Your task to perform on an android device: Search for a nightstand on IKEA. Image 0: 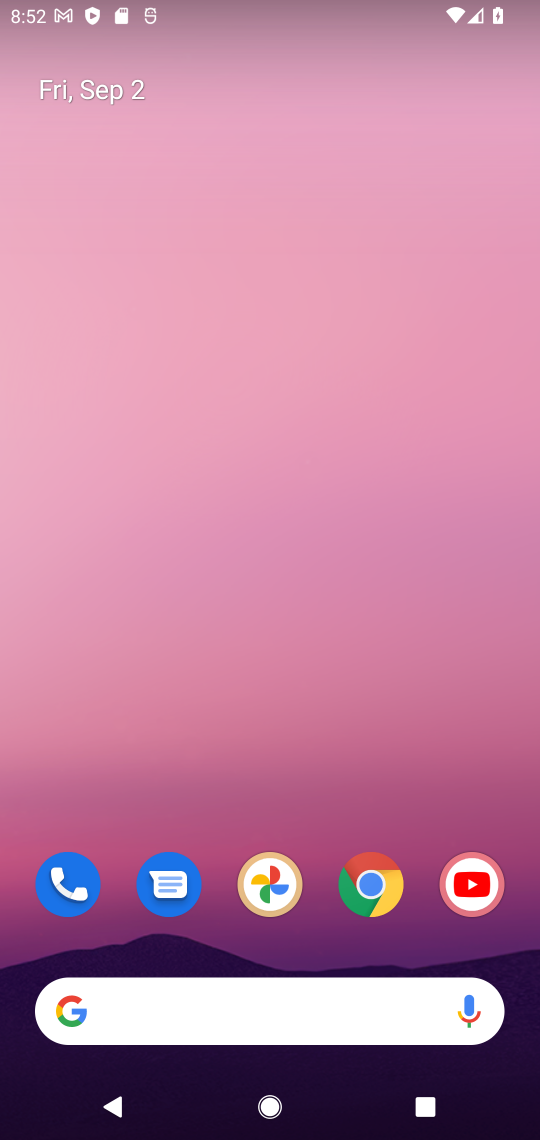
Step 0: click (366, 897)
Your task to perform on an android device: Search for a nightstand on IKEA. Image 1: 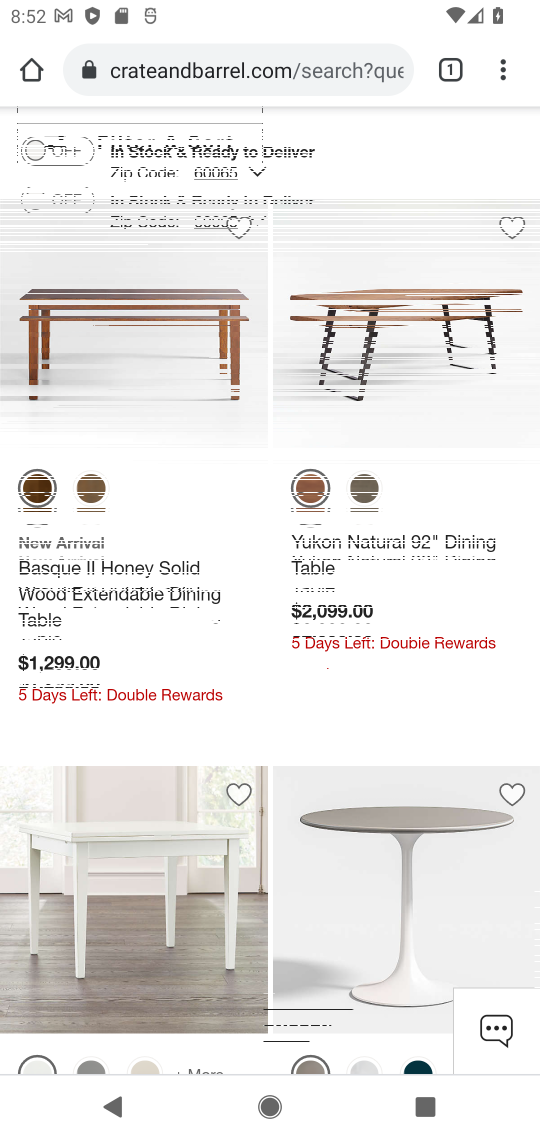
Step 1: click (259, 75)
Your task to perform on an android device: Search for a nightstand on IKEA. Image 2: 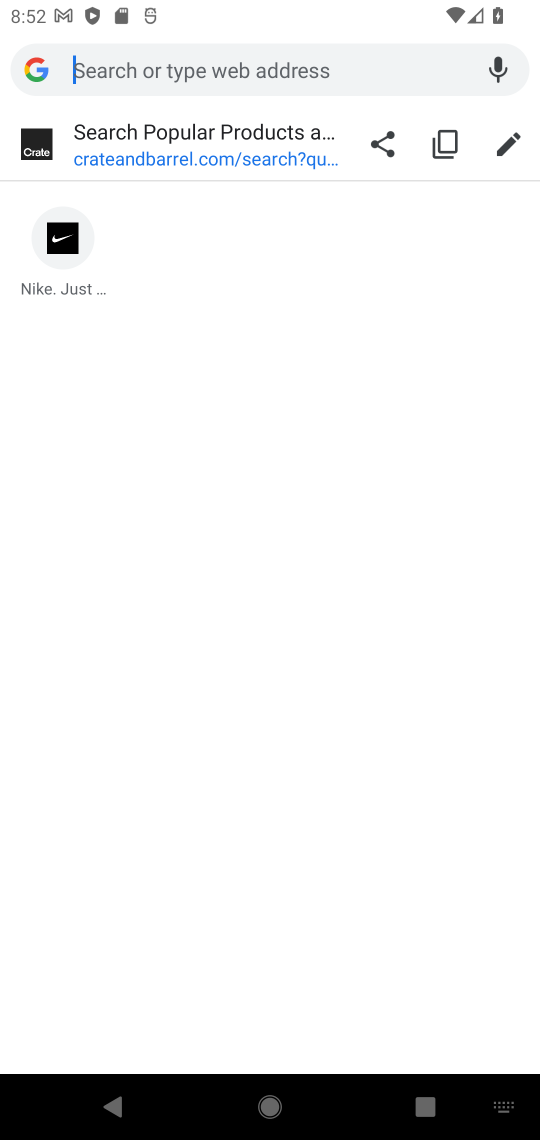
Step 2: type "ikea"
Your task to perform on an android device: Search for a nightstand on IKEA. Image 3: 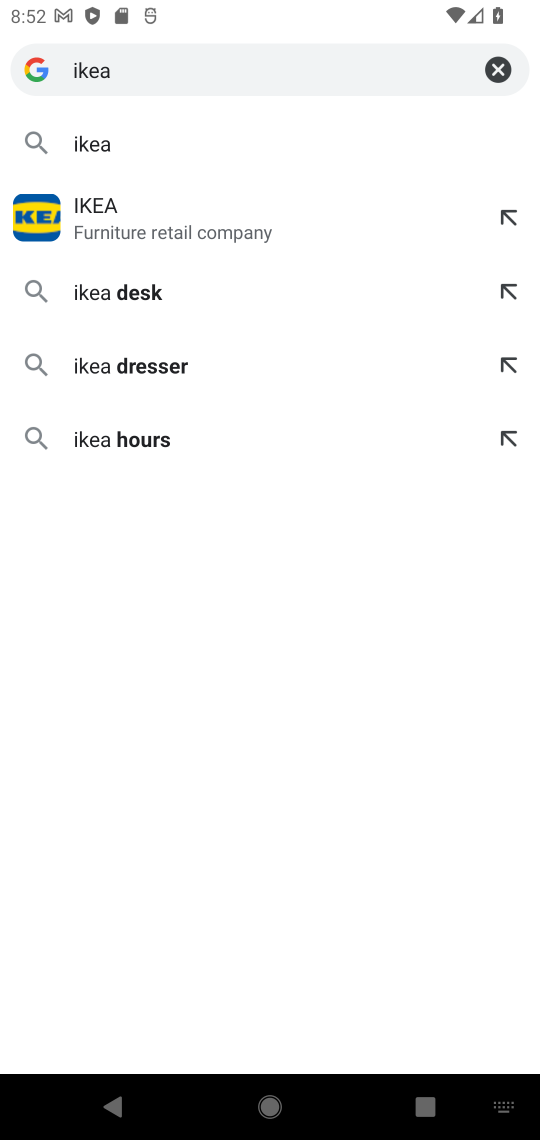
Step 3: click (74, 237)
Your task to perform on an android device: Search for a nightstand on IKEA. Image 4: 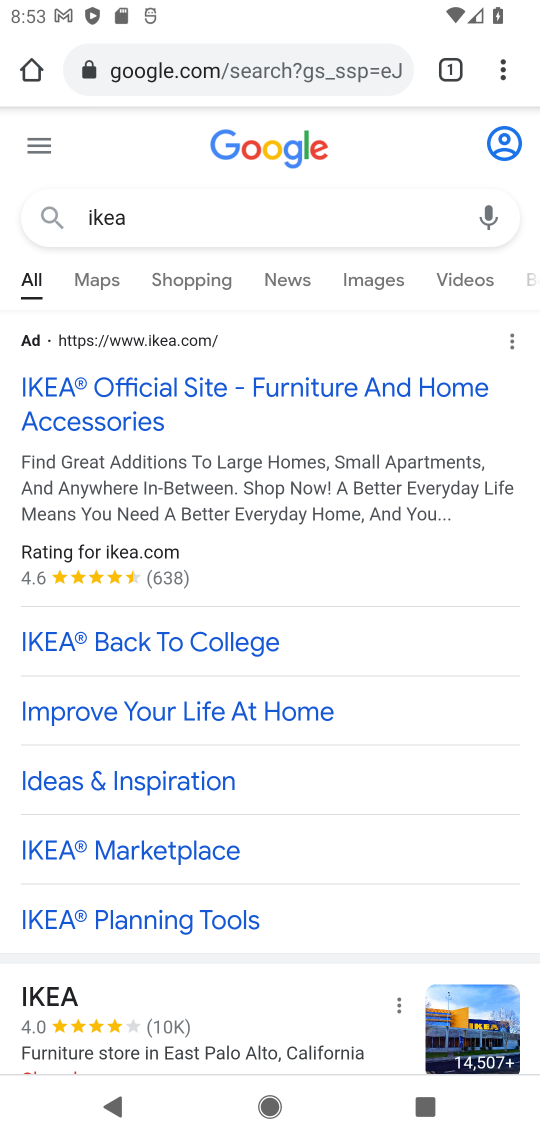
Step 4: drag from (184, 813) to (191, 434)
Your task to perform on an android device: Search for a nightstand on IKEA. Image 5: 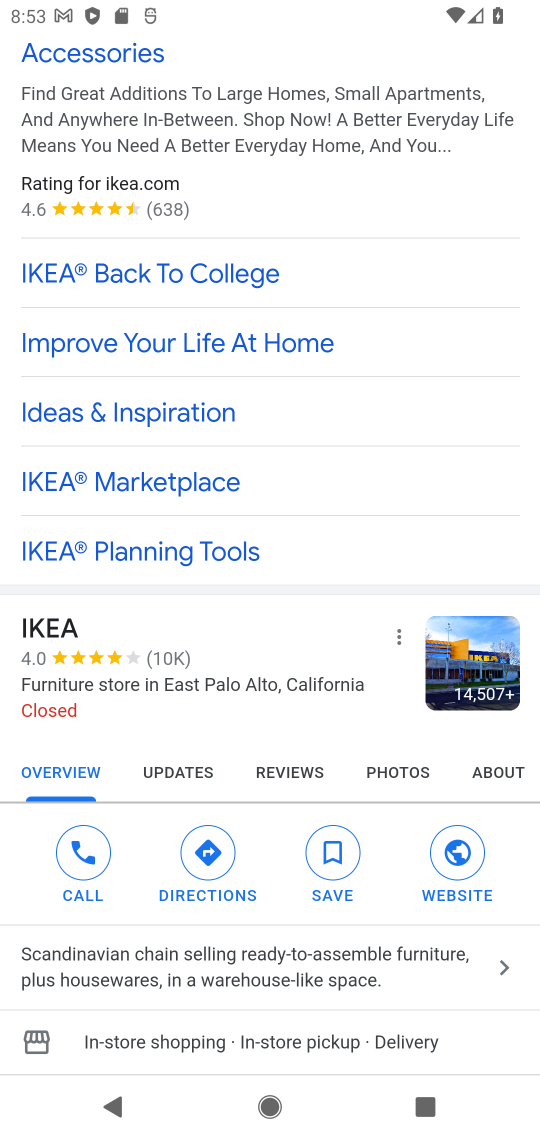
Step 5: drag from (152, 936) to (194, 529)
Your task to perform on an android device: Search for a nightstand on IKEA. Image 6: 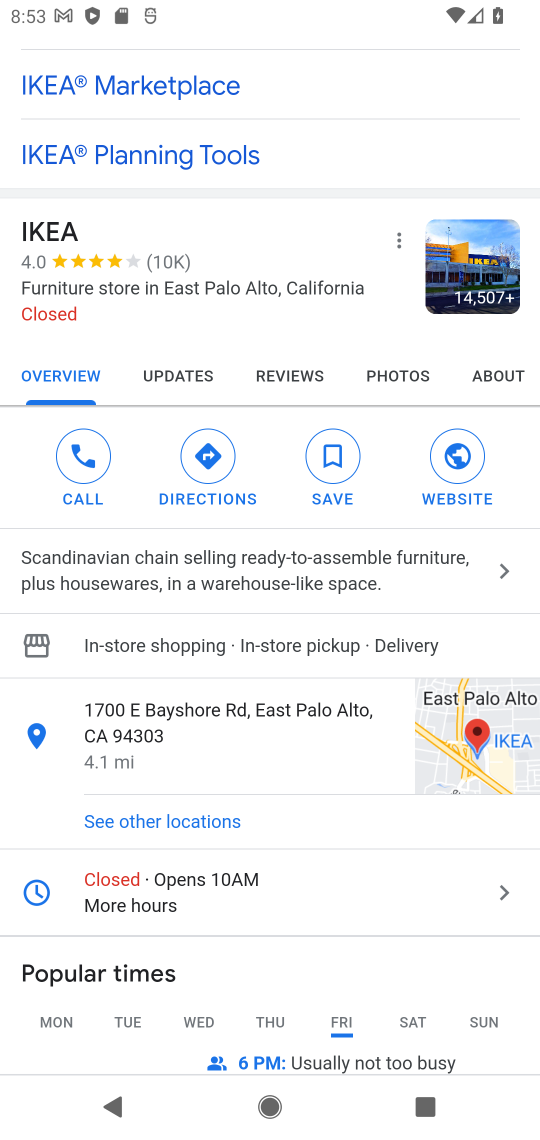
Step 6: drag from (178, 755) to (201, 363)
Your task to perform on an android device: Search for a nightstand on IKEA. Image 7: 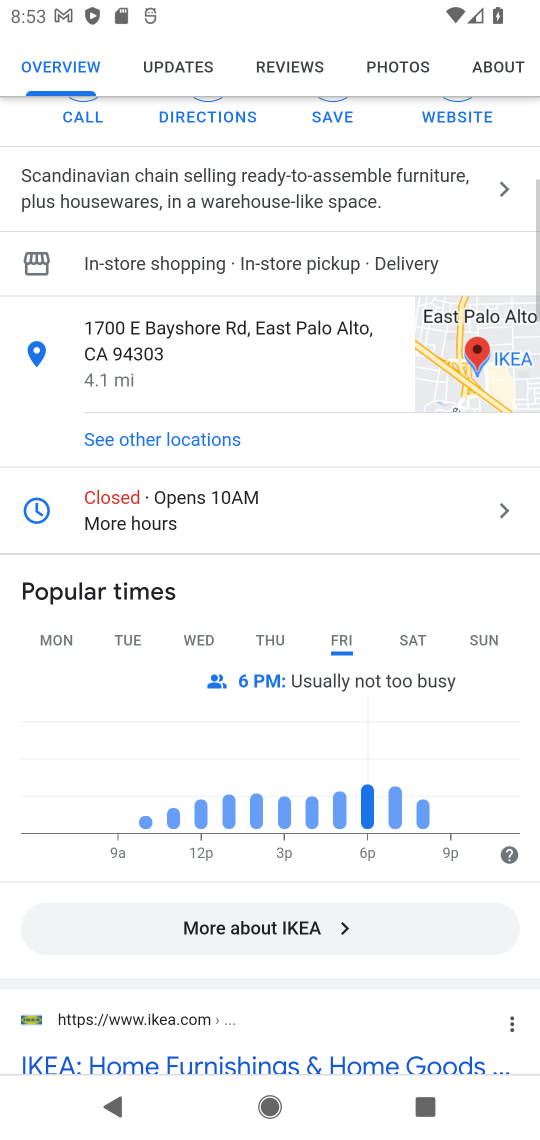
Step 7: drag from (151, 803) to (158, 448)
Your task to perform on an android device: Search for a nightstand on IKEA. Image 8: 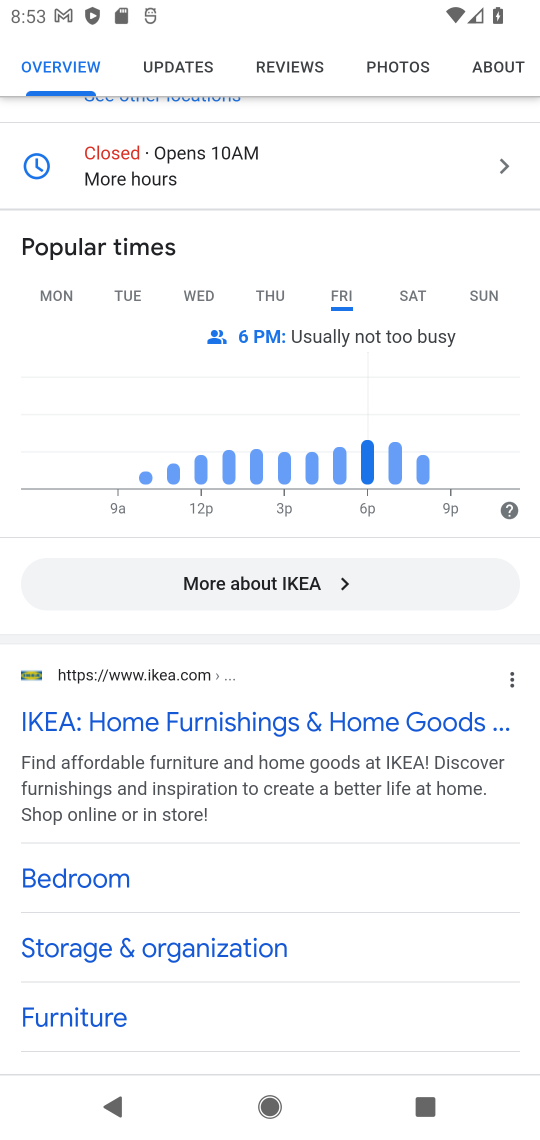
Step 8: click (56, 721)
Your task to perform on an android device: Search for a nightstand on IKEA. Image 9: 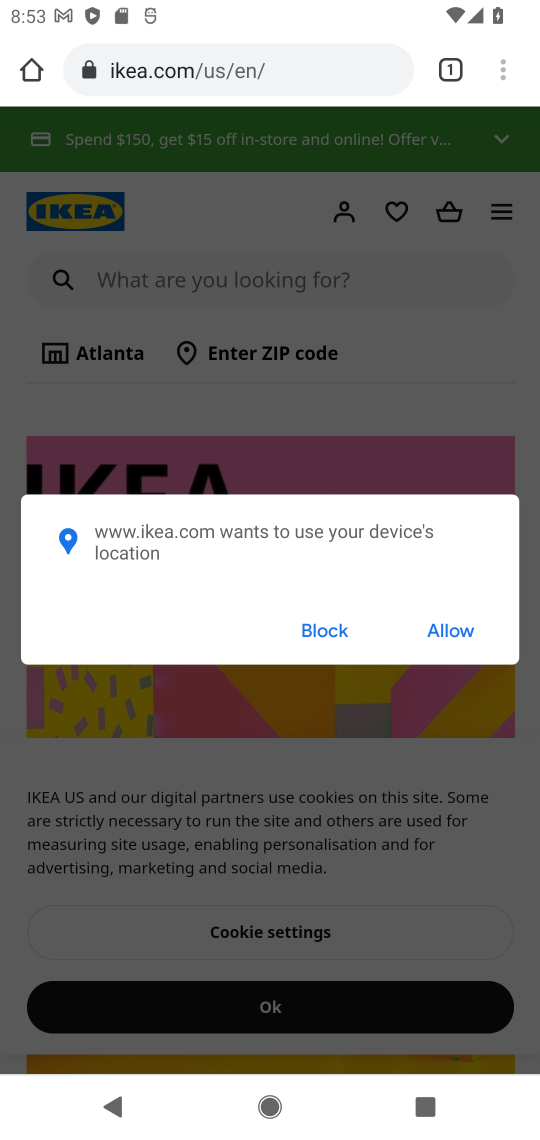
Step 9: click (350, 637)
Your task to perform on an android device: Search for a nightstand on IKEA. Image 10: 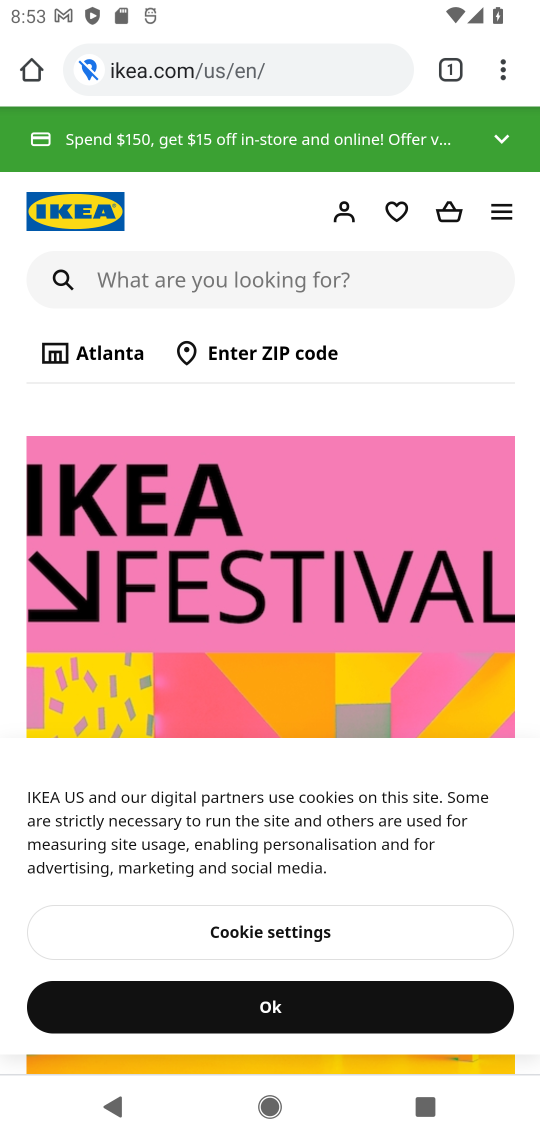
Step 10: click (153, 281)
Your task to perform on an android device: Search for a nightstand on IKEA. Image 11: 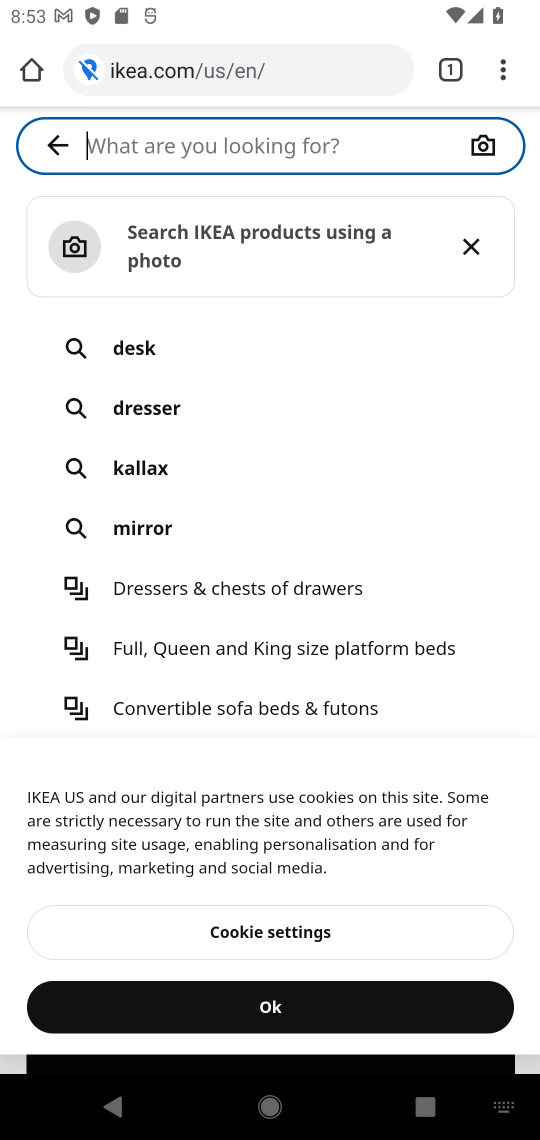
Step 11: type " nightstand"
Your task to perform on an android device: Search for a nightstand on IKEA. Image 12: 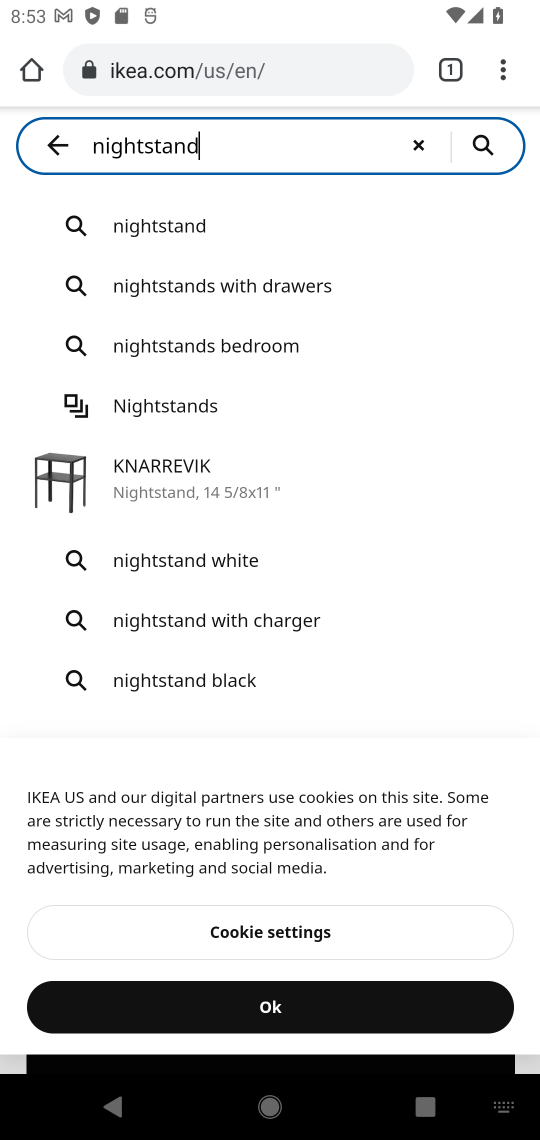
Step 12: click (217, 232)
Your task to perform on an android device: Search for a nightstand on IKEA. Image 13: 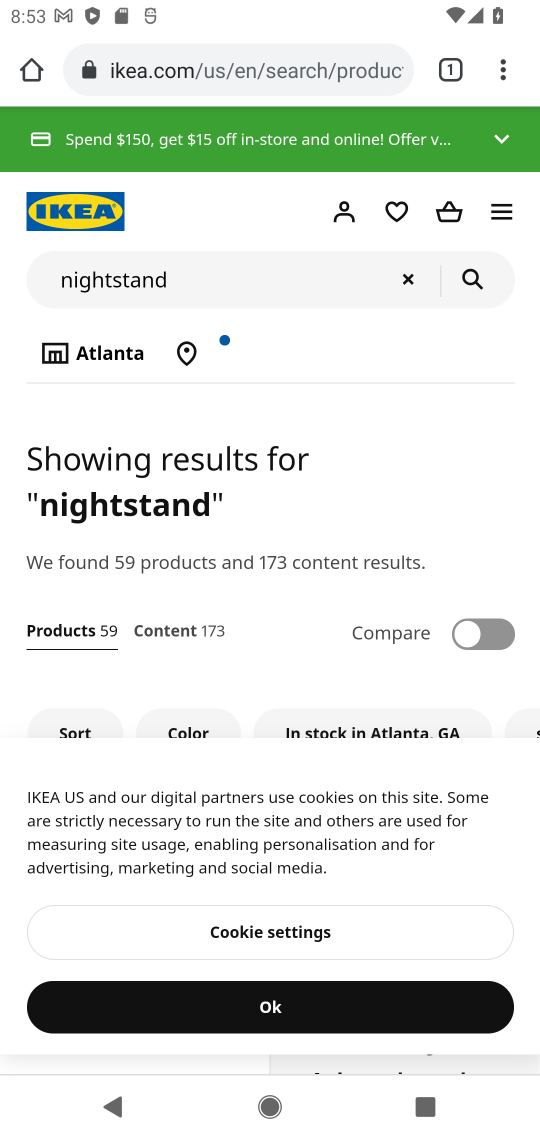
Step 13: task complete